Your task to perform on an android device: Open Google Chrome and open the bookmarks view Image 0: 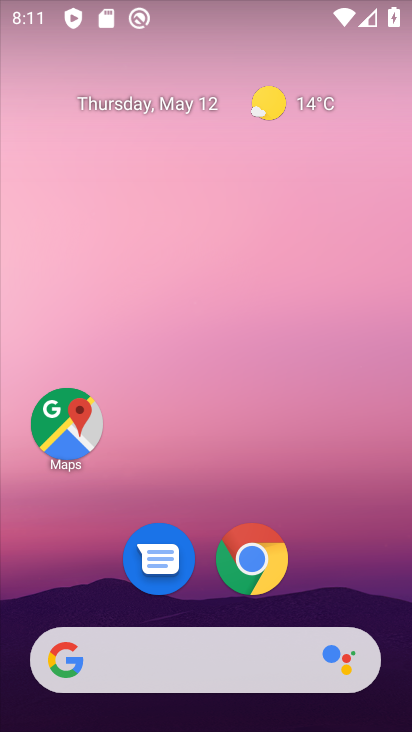
Step 0: click (260, 590)
Your task to perform on an android device: Open Google Chrome and open the bookmarks view Image 1: 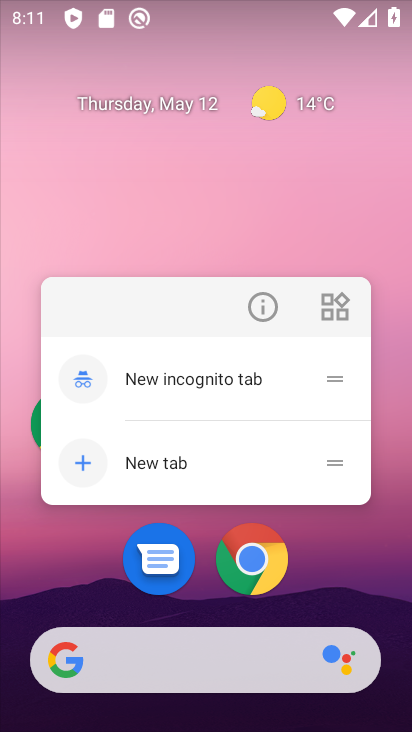
Step 1: click (254, 582)
Your task to perform on an android device: Open Google Chrome and open the bookmarks view Image 2: 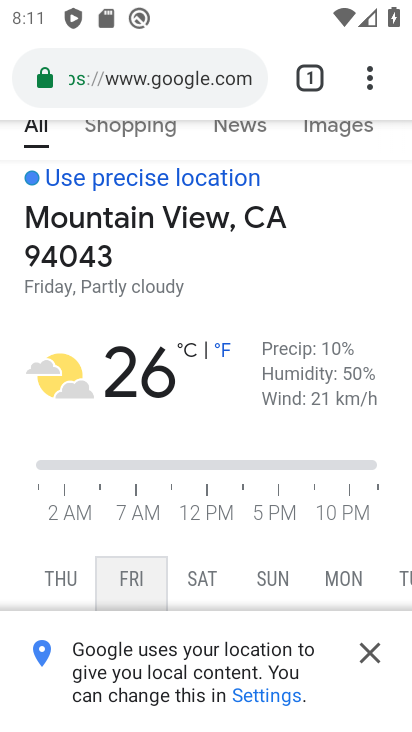
Step 2: task complete